Your task to perform on an android device: check android version Image 0: 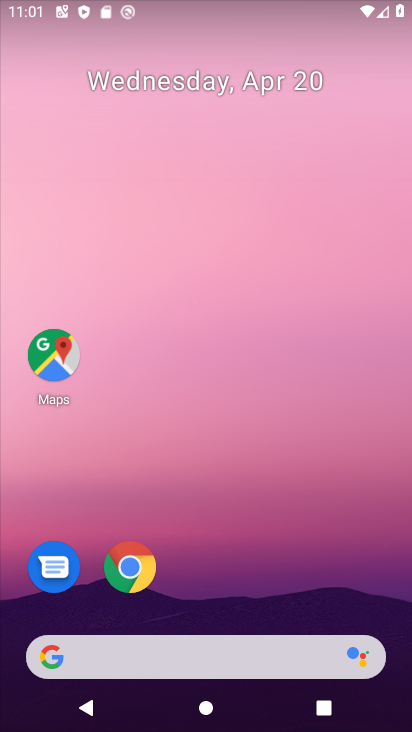
Step 0: drag from (300, 514) to (194, 4)
Your task to perform on an android device: check android version Image 1: 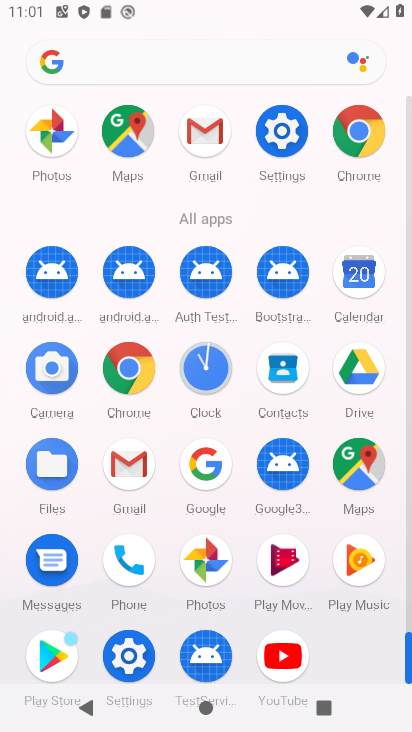
Step 1: drag from (7, 522) to (14, 310)
Your task to perform on an android device: check android version Image 2: 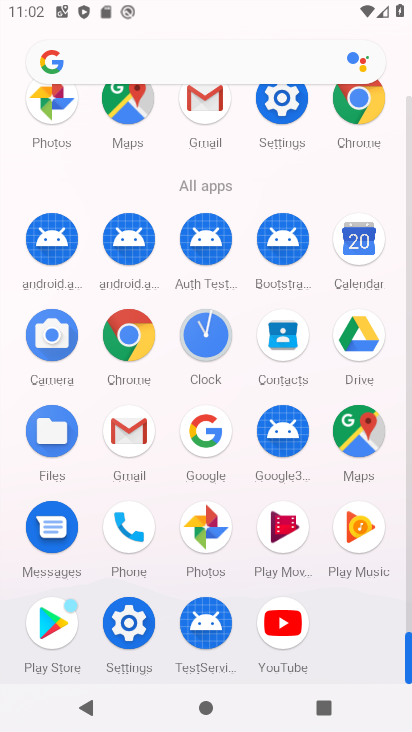
Step 2: click (121, 618)
Your task to perform on an android device: check android version Image 3: 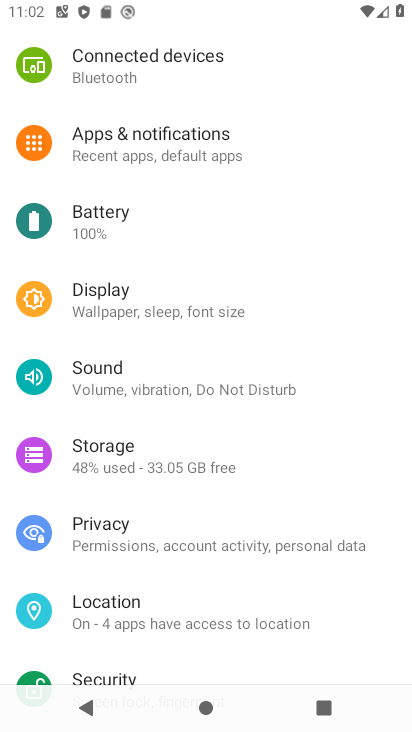
Step 3: drag from (253, 378) to (245, 105)
Your task to perform on an android device: check android version Image 4: 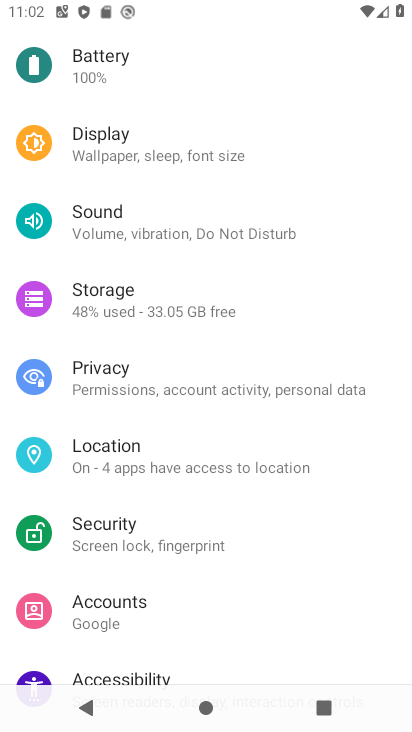
Step 4: drag from (232, 584) to (250, 126)
Your task to perform on an android device: check android version Image 5: 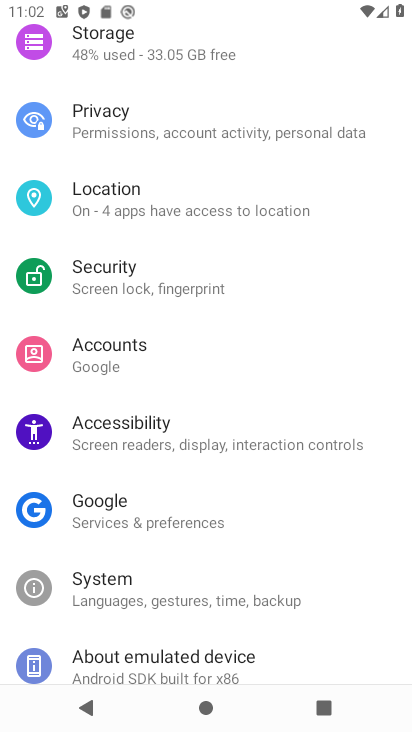
Step 5: drag from (255, 626) to (240, 203)
Your task to perform on an android device: check android version Image 6: 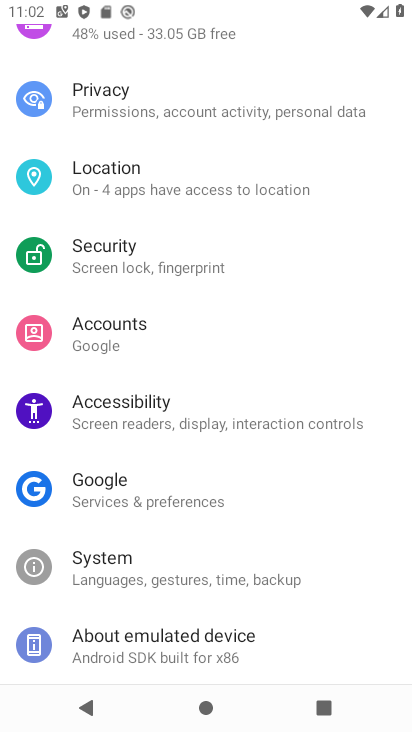
Step 6: click (196, 640)
Your task to perform on an android device: check android version Image 7: 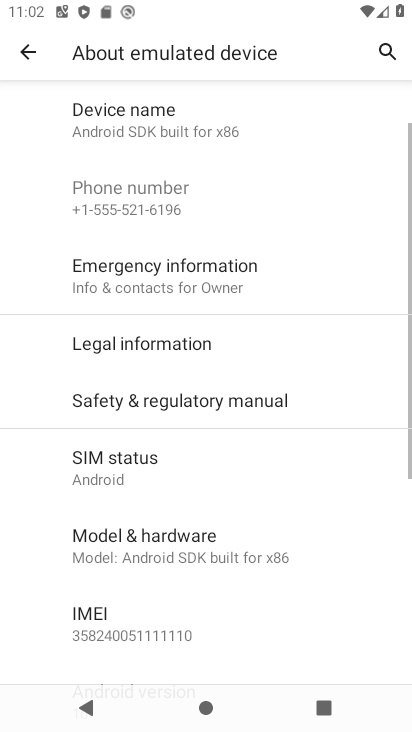
Step 7: drag from (245, 521) to (251, 154)
Your task to perform on an android device: check android version Image 8: 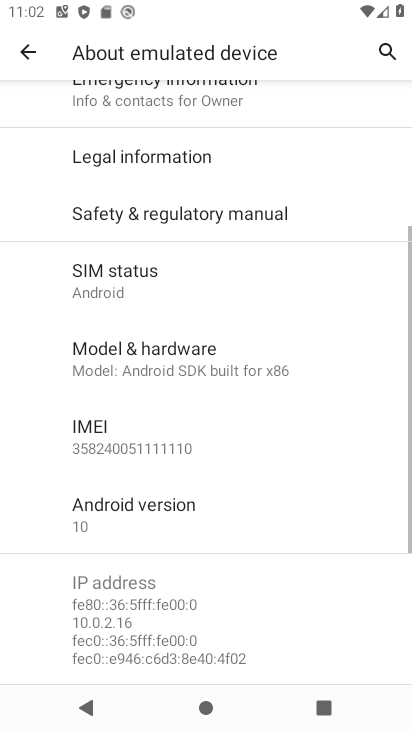
Step 8: drag from (264, 525) to (262, 161)
Your task to perform on an android device: check android version Image 9: 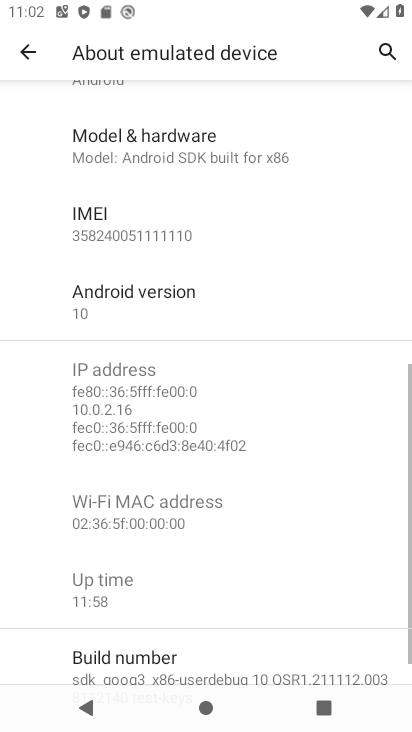
Step 9: drag from (298, 528) to (289, 216)
Your task to perform on an android device: check android version Image 10: 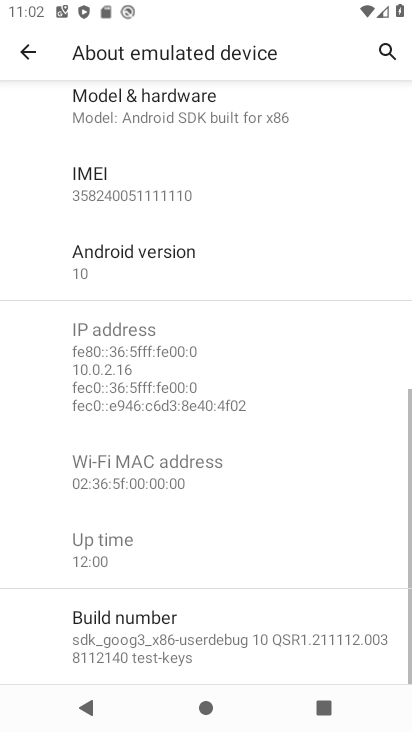
Step 10: drag from (289, 252) to (307, 573)
Your task to perform on an android device: check android version Image 11: 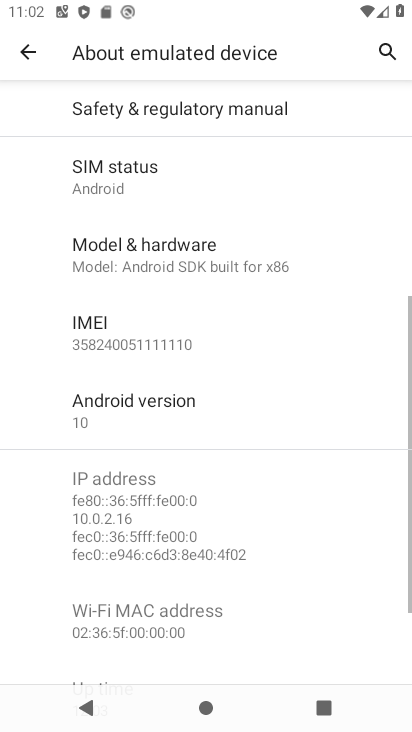
Step 11: click (149, 406)
Your task to perform on an android device: check android version Image 12: 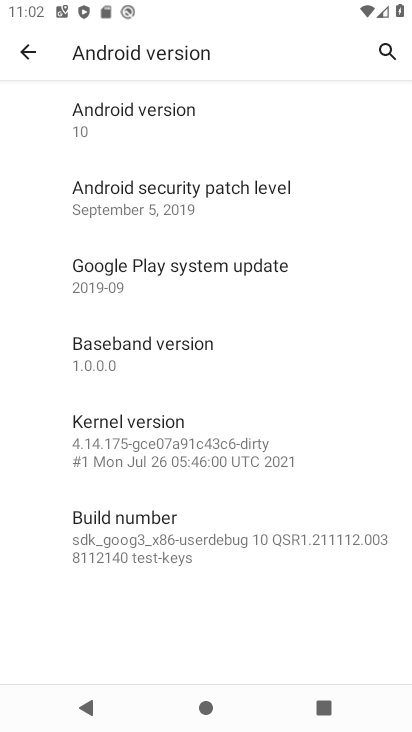
Step 12: task complete